Your task to perform on an android device: Do I have any events tomorrow? Image 0: 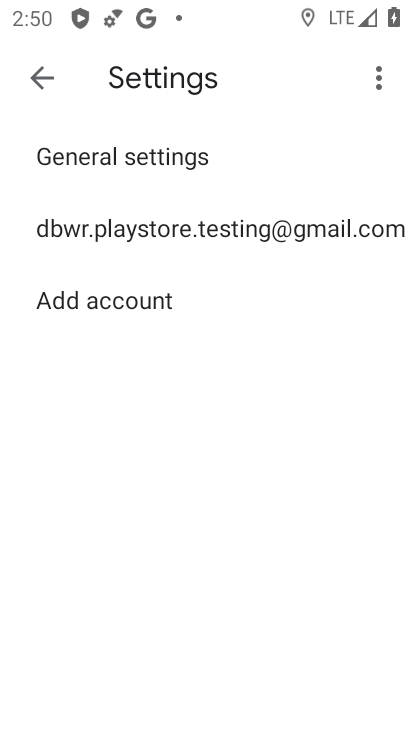
Step 0: press home button
Your task to perform on an android device: Do I have any events tomorrow? Image 1: 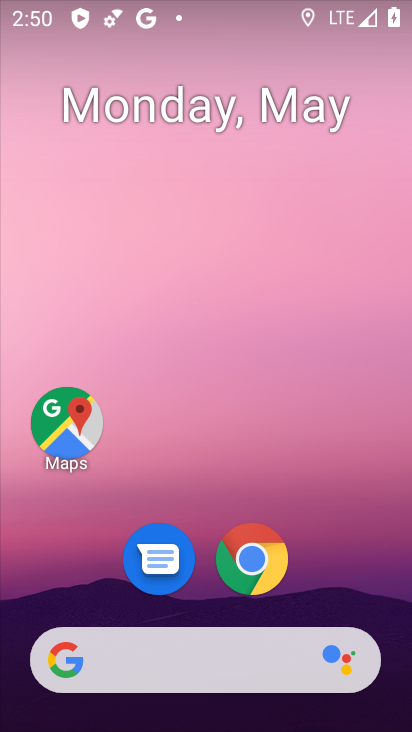
Step 1: drag from (310, 604) to (310, 34)
Your task to perform on an android device: Do I have any events tomorrow? Image 2: 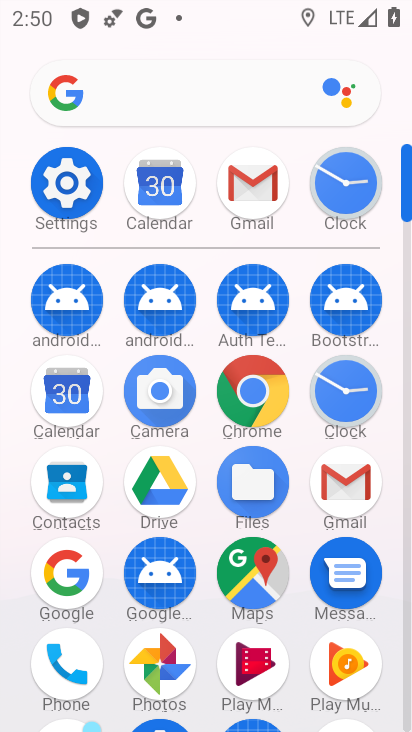
Step 2: click (69, 391)
Your task to perform on an android device: Do I have any events tomorrow? Image 3: 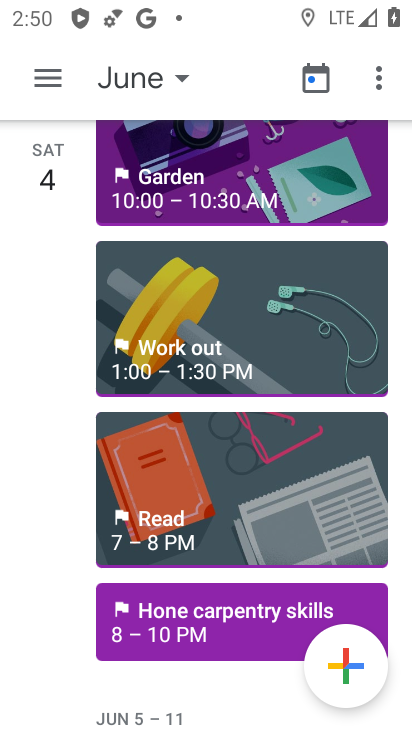
Step 3: click (155, 90)
Your task to perform on an android device: Do I have any events tomorrow? Image 4: 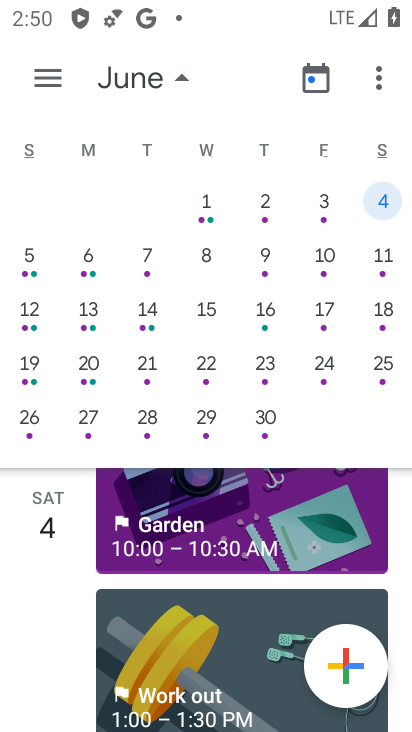
Step 4: drag from (59, 402) to (364, 346)
Your task to perform on an android device: Do I have any events tomorrow? Image 5: 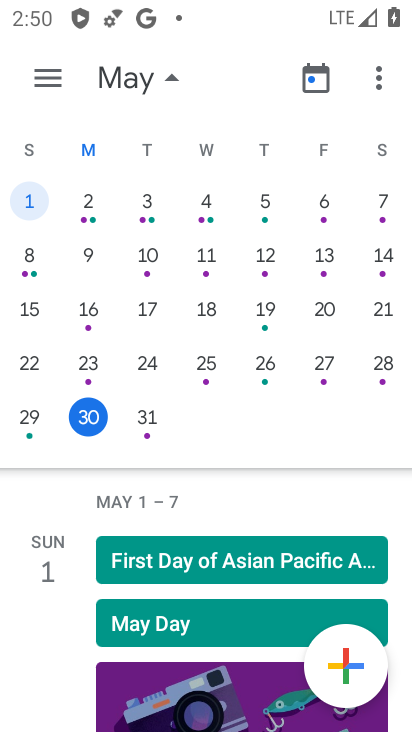
Step 5: click (139, 428)
Your task to perform on an android device: Do I have any events tomorrow? Image 6: 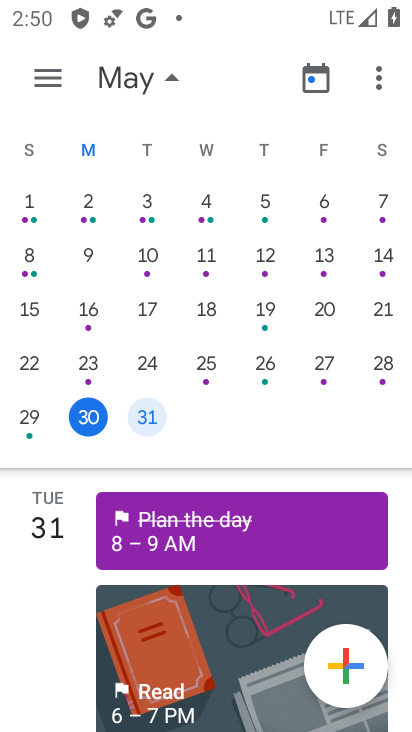
Step 6: task complete